Your task to perform on an android device: Set the phone to "Do not disturb". Image 0: 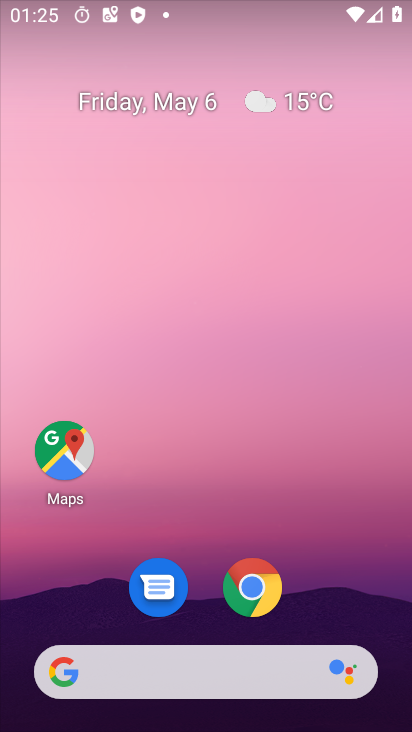
Step 0: drag from (383, 632) to (329, 254)
Your task to perform on an android device: Set the phone to "Do not disturb". Image 1: 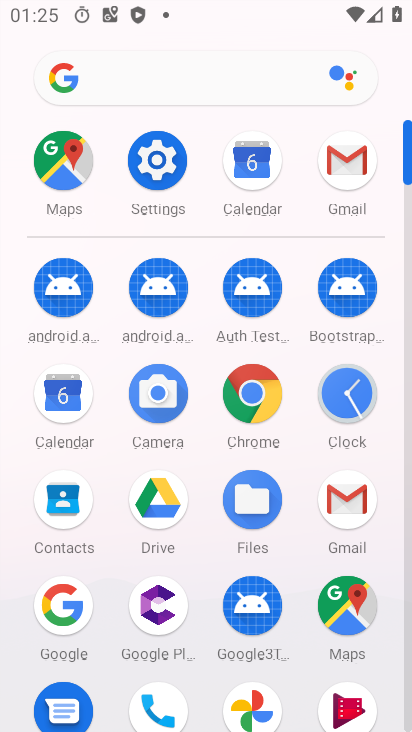
Step 1: click (162, 156)
Your task to perform on an android device: Set the phone to "Do not disturb". Image 2: 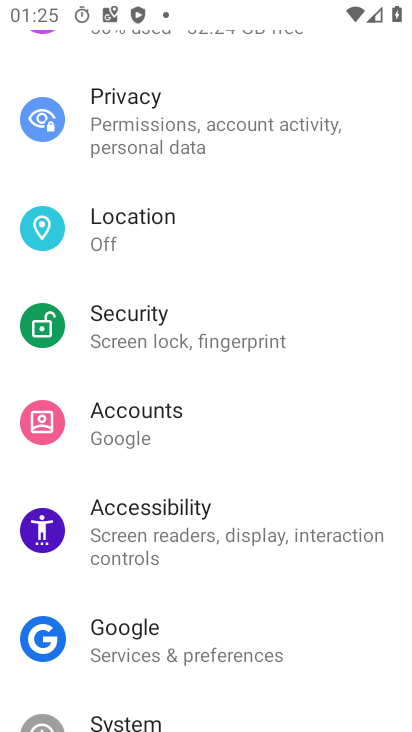
Step 2: drag from (335, 220) to (354, 515)
Your task to perform on an android device: Set the phone to "Do not disturb". Image 3: 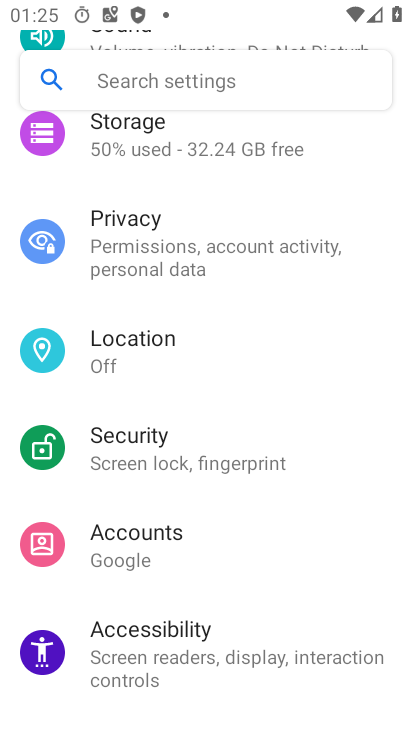
Step 3: drag from (372, 183) to (388, 668)
Your task to perform on an android device: Set the phone to "Do not disturb". Image 4: 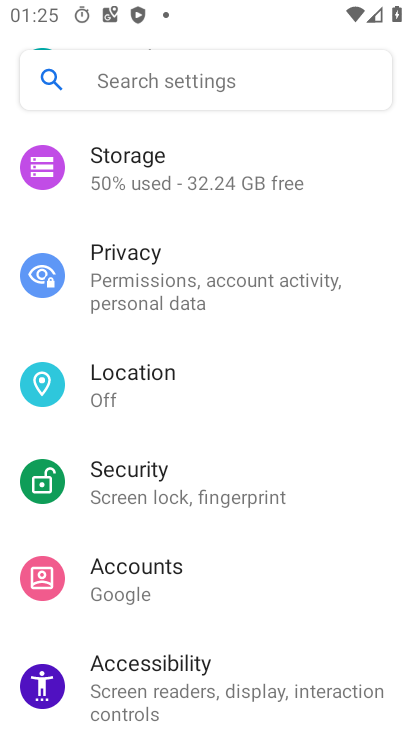
Step 4: drag from (350, 185) to (352, 503)
Your task to perform on an android device: Set the phone to "Do not disturb". Image 5: 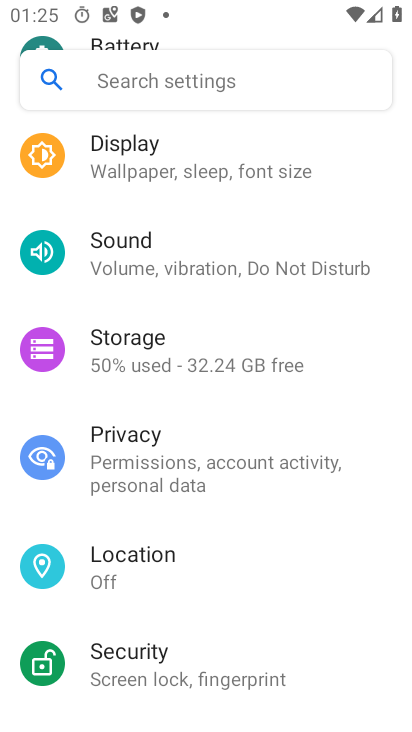
Step 5: click (252, 275)
Your task to perform on an android device: Set the phone to "Do not disturb". Image 6: 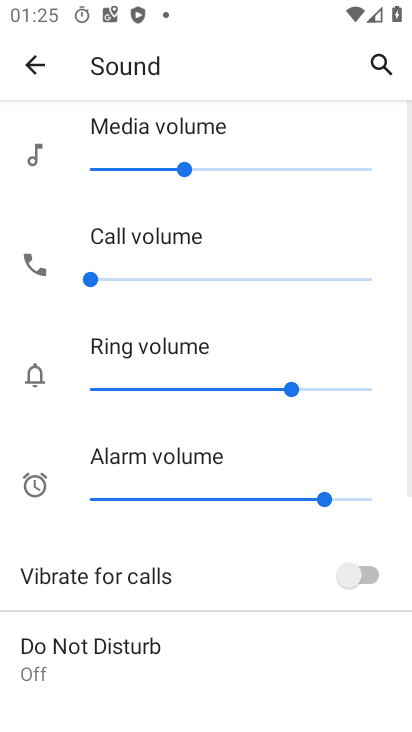
Step 6: drag from (294, 671) to (324, 292)
Your task to perform on an android device: Set the phone to "Do not disturb". Image 7: 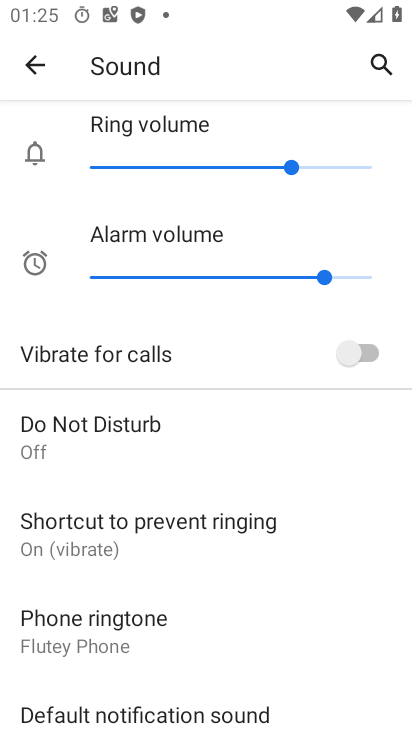
Step 7: drag from (277, 702) to (279, 378)
Your task to perform on an android device: Set the phone to "Do not disturb". Image 8: 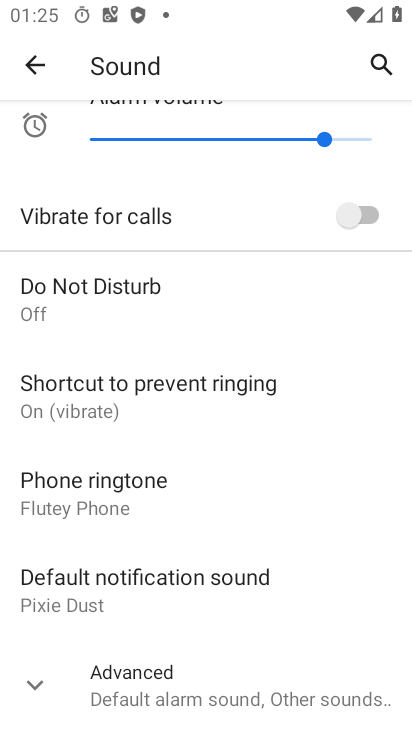
Step 8: click (99, 294)
Your task to perform on an android device: Set the phone to "Do not disturb". Image 9: 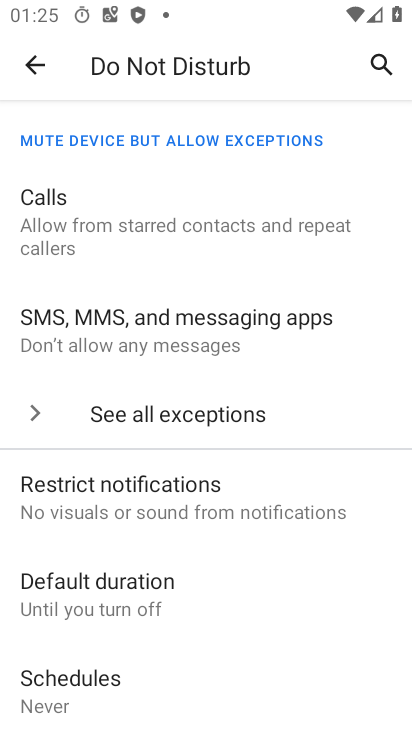
Step 9: drag from (236, 632) to (220, 361)
Your task to perform on an android device: Set the phone to "Do not disturb". Image 10: 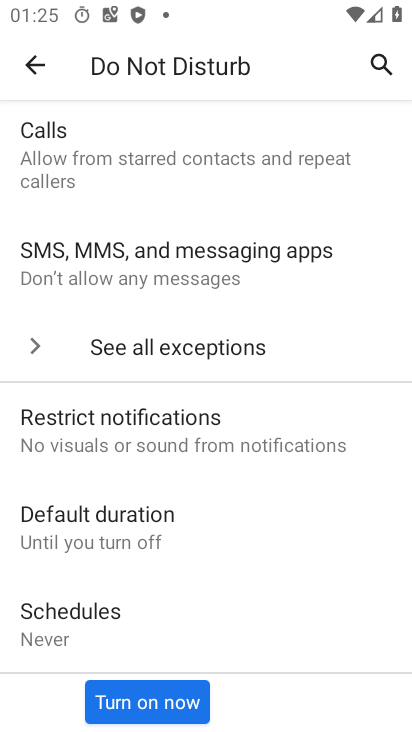
Step 10: click (172, 690)
Your task to perform on an android device: Set the phone to "Do not disturb". Image 11: 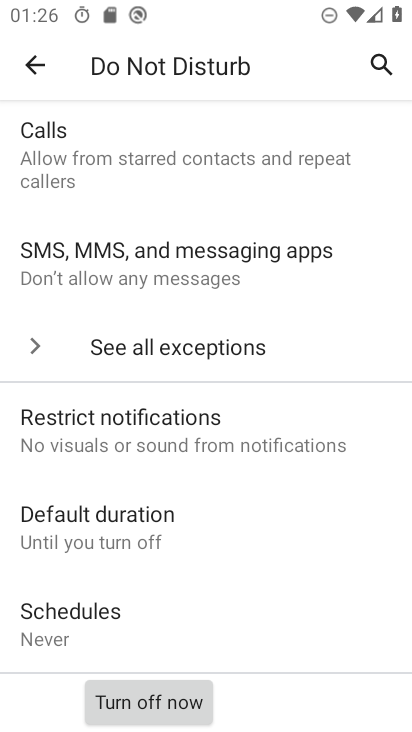
Step 11: task complete